Your task to perform on an android device: turn off location Image 0: 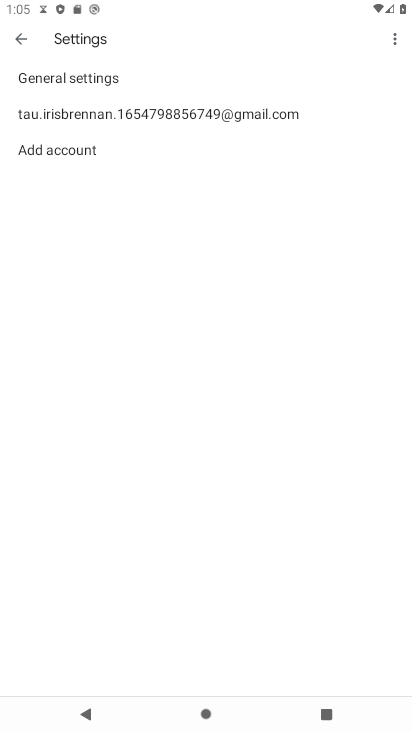
Step 0: press home button
Your task to perform on an android device: turn off location Image 1: 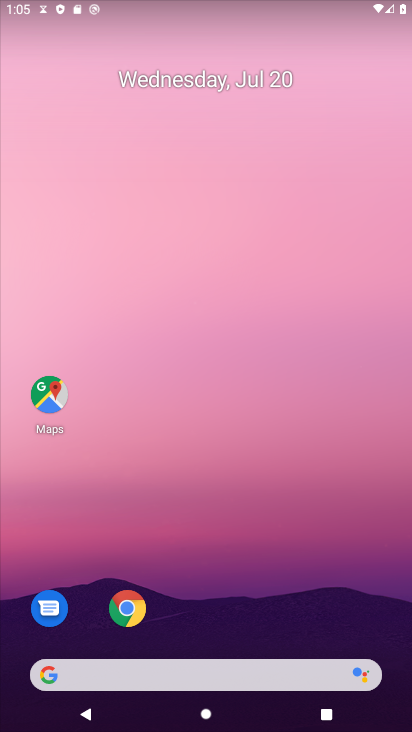
Step 1: drag from (195, 680) to (352, 3)
Your task to perform on an android device: turn off location Image 2: 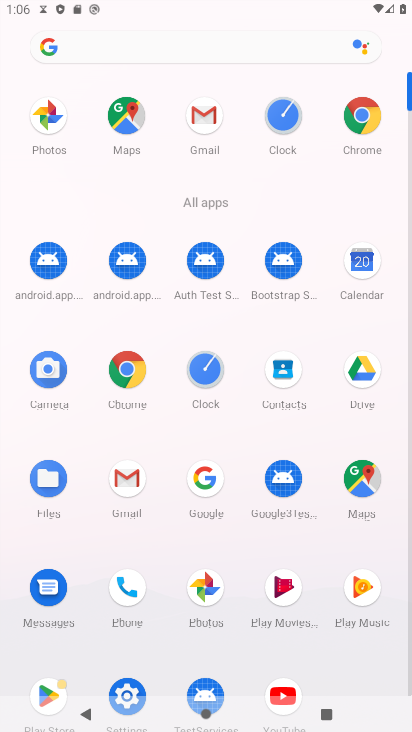
Step 2: click (128, 693)
Your task to perform on an android device: turn off location Image 3: 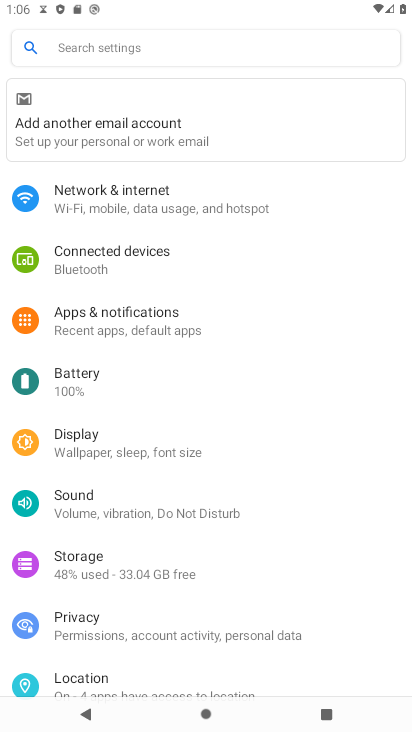
Step 3: drag from (126, 574) to (208, 455)
Your task to perform on an android device: turn off location Image 4: 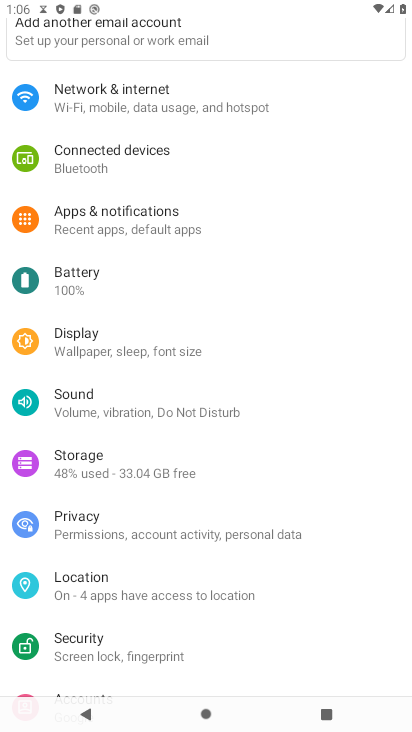
Step 4: click (104, 583)
Your task to perform on an android device: turn off location Image 5: 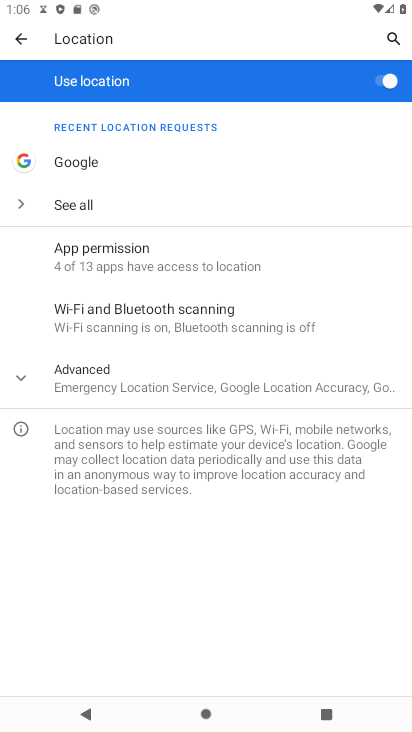
Step 5: click (384, 76)
Your task to perform on an android device: turn off location Image 6: 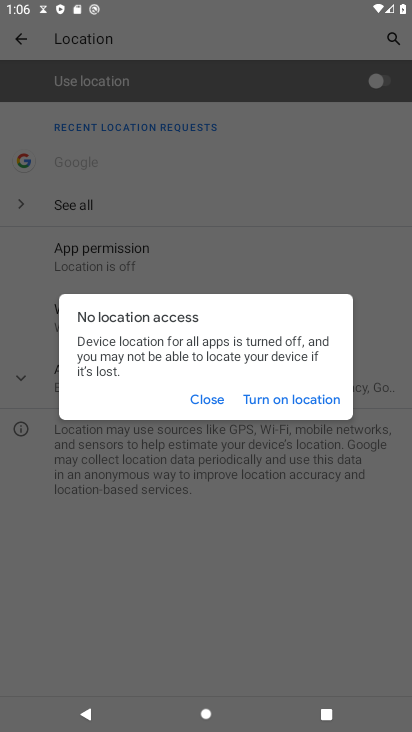
Step 6: click (204, 394)
Your task to perform on an android device: turn off location Image 7: 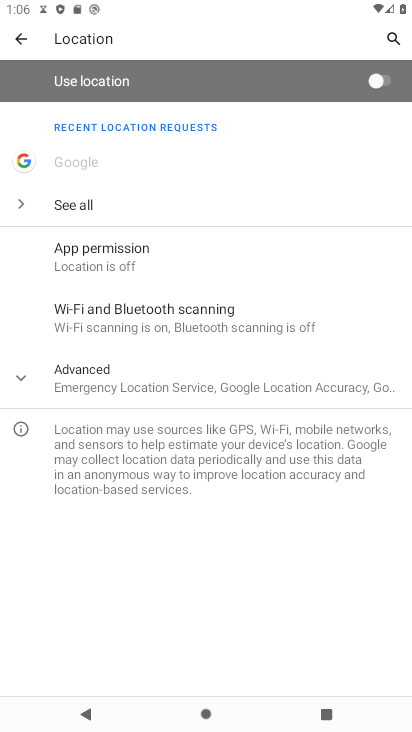
Step 7: task complete